Your task to perform on an android device: Go to internet settings Image 0: 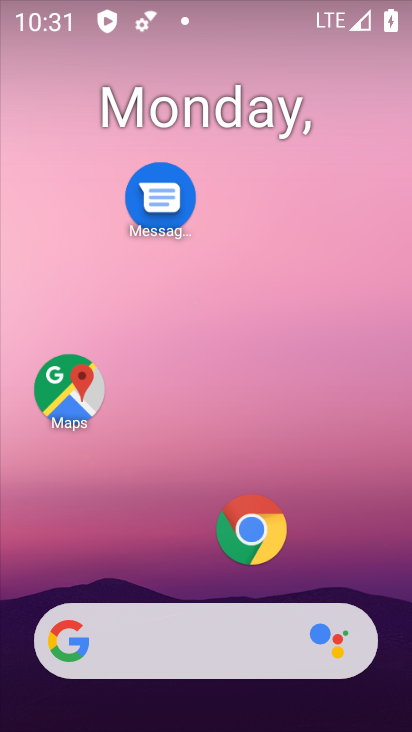
Step 0: drag from (193, 482) to (360, 33)
Your task to perform on an android device: Go to internet settings Image 1: 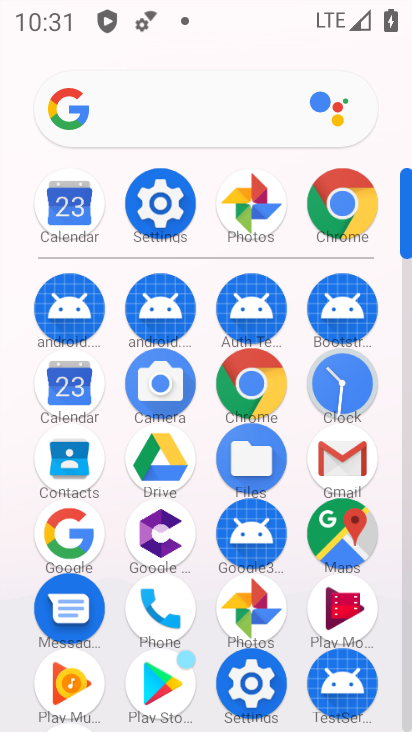
Step 1: click (151, 224)
Your task to perform on an android device: Go to internet settings Image 2: 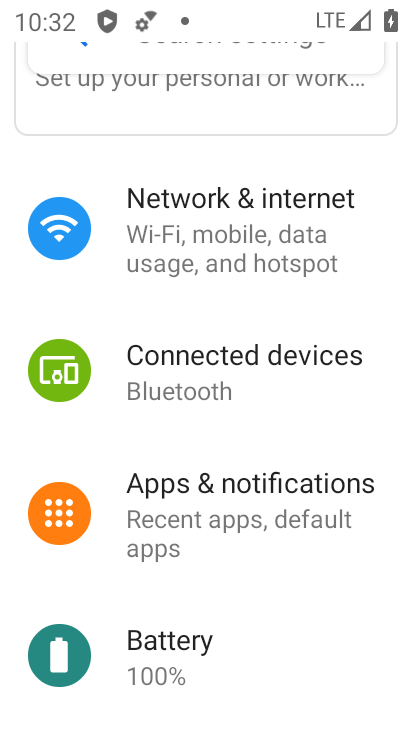
Step 2: click (250, 241)
Your task to perform on an android device: Go to internet settings Image 3: 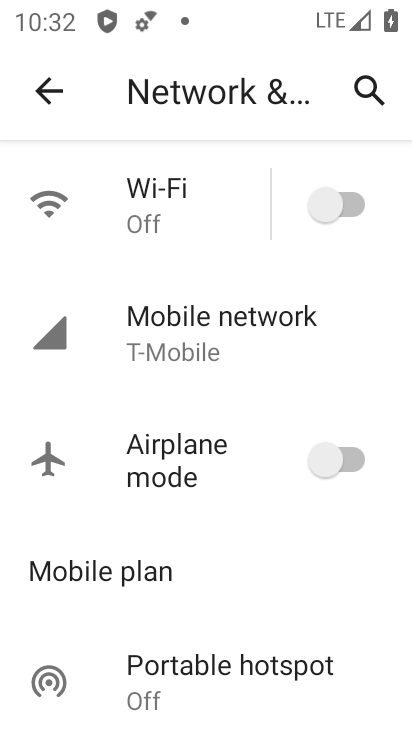
Step 3: click (199, 350)
Your task to perform on an android device: Go to internet settings Image 4: 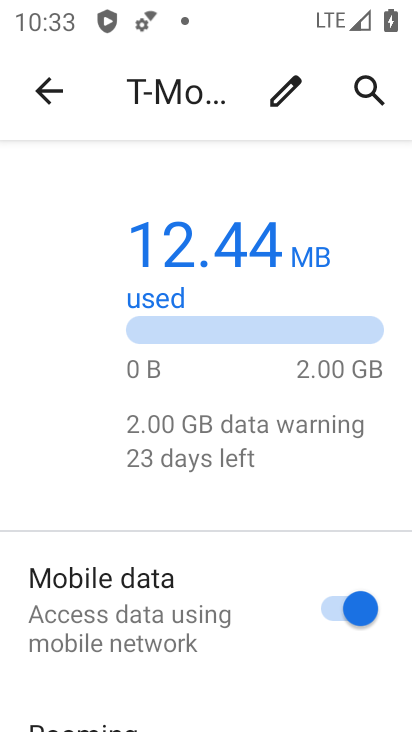
Step 4: task complete